Your task to perform on an android device: see tabs open on other devices in the chrome app Image 0: 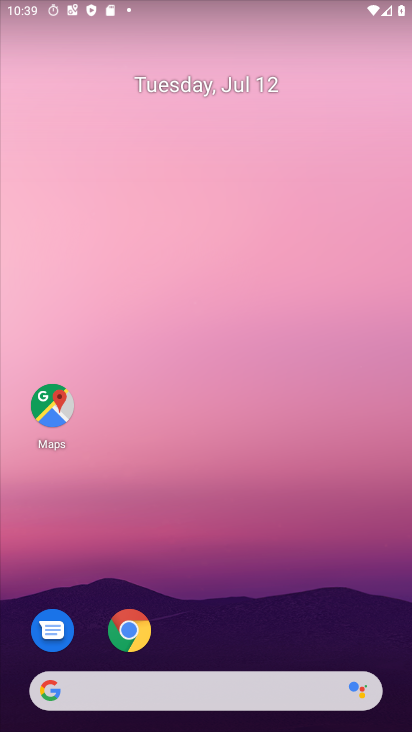
Step 0: click (120, 633)
Your task to perform on an android device: see tabs open on other devices in the chrome app Image 1: 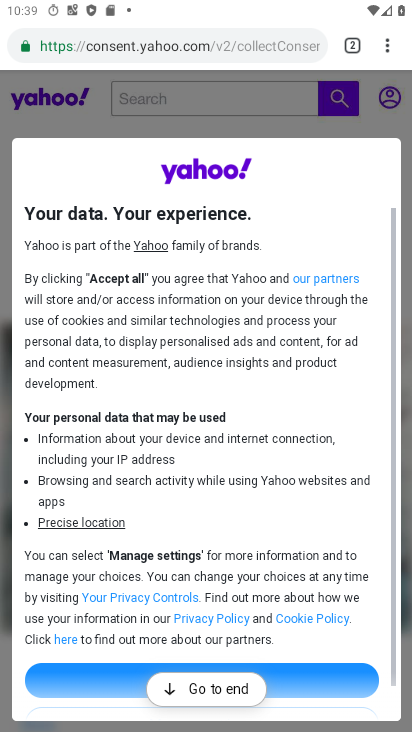
Step 1: click (381, 45)
Your task to perform on an android device: see tabs open on other devices in the chrome app Image 2: 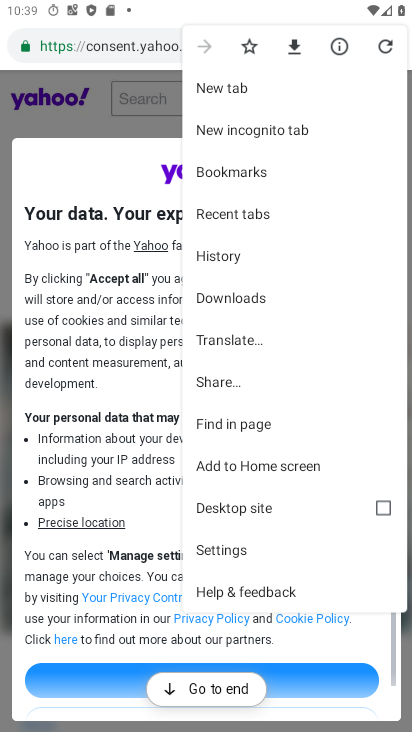
Step 2: click (129, 65)
Your task to perform on an android device: see tabs open on other devices in the chrome app Image 3: 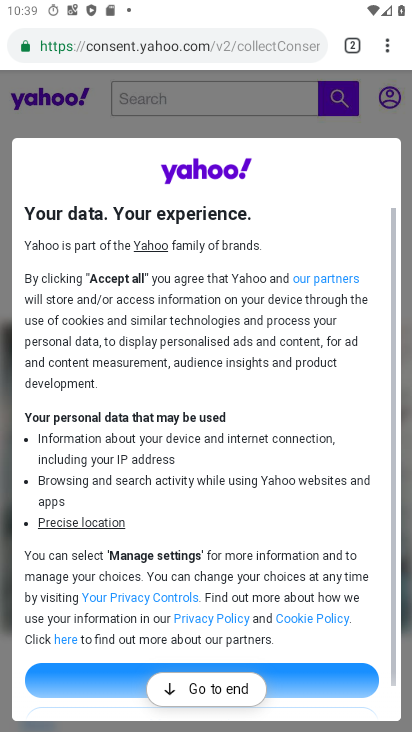
Step 3: click (353, 40)
Your task to perform on an android device: see tabs open on other devices in the chrome app Image 4: 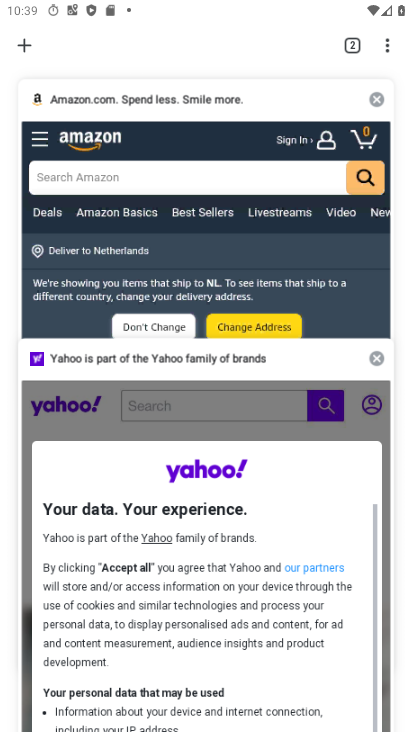
Step 4: task complete